Your task to perform on an android device: Go to Yahoo.com Image 0: 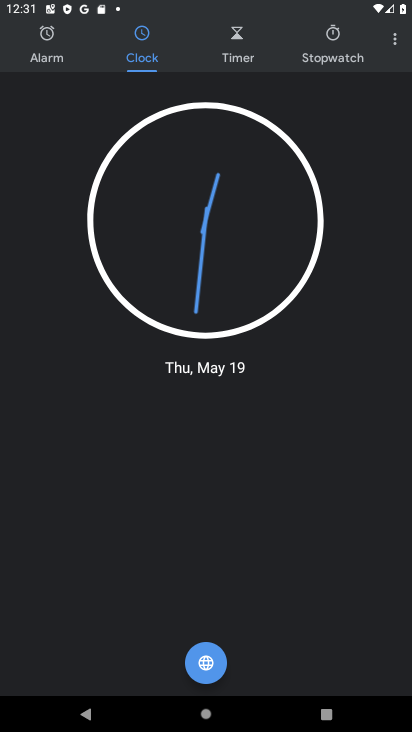
Step 0: press home button
Your task to perform on an android device: Go to Yahoo.com Image 1: 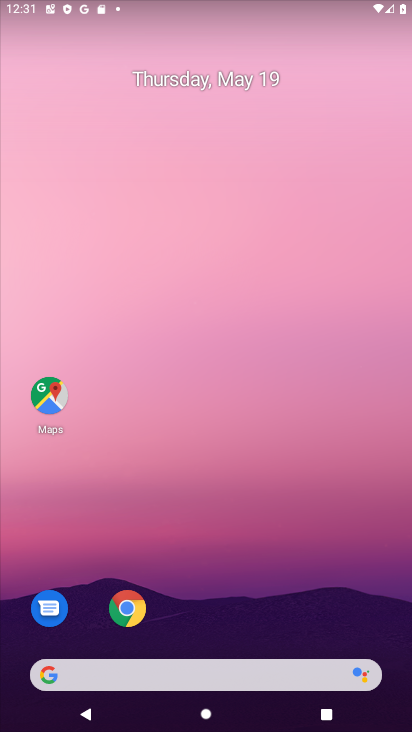
Step 1: drag from (221, 607) to (266, 271)
Your task to perform on an android device: Go to Yahoo.com Image 2: 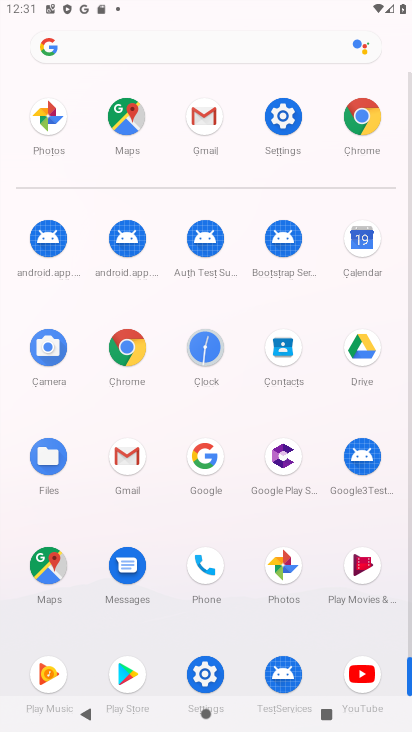
Step 2: click (362, 117)
Your task to perform on an android device: Go to Yahoo.com Image 3: 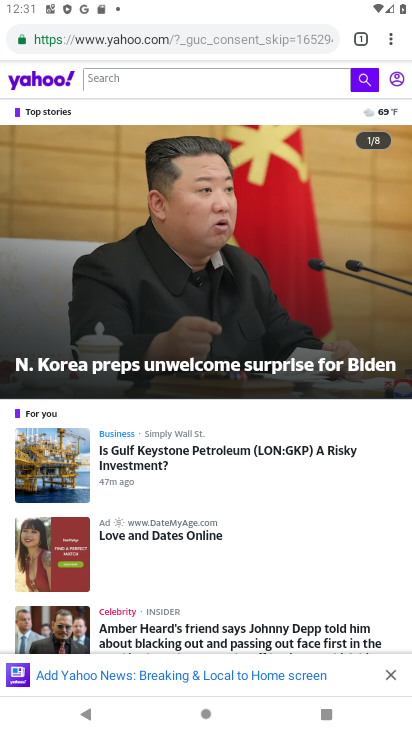
Step 3: task complete